Your task to perform on an android device: Open the Play Movies app and select the watchlist tab. Image 0: 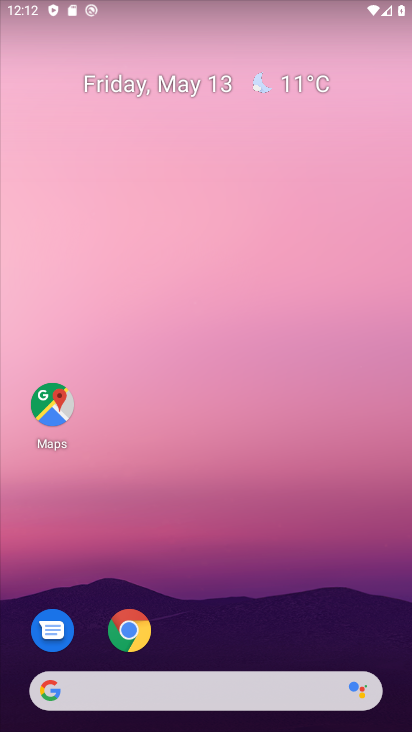
Step 0: press home button
Your task to perform on an android device: Open the Play Movies app and select the watchlist tab. Image 1: 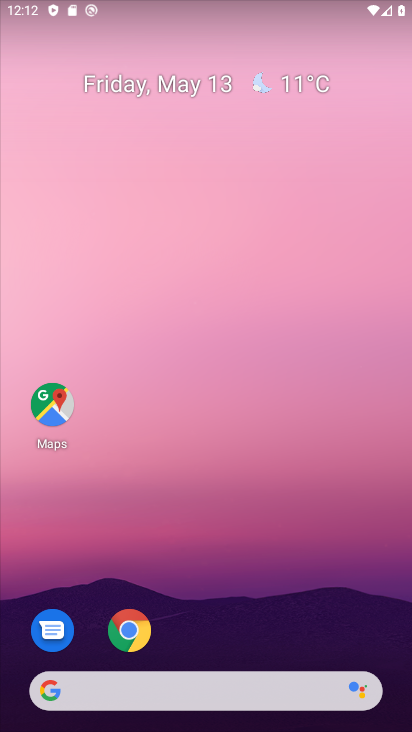
Step 1: click (201, 627)
Your task to perform on an android device: Open the Play Movies app and select the watchlist tab. Image 2: 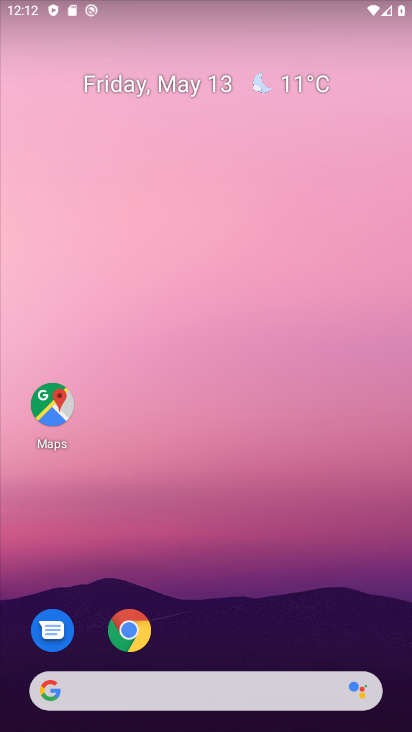
Step 2: drag from (255, 429) to (43, 388)
Your task to perform on an android device: Open the Play Movies app and select the watchlist tab. Image 3: 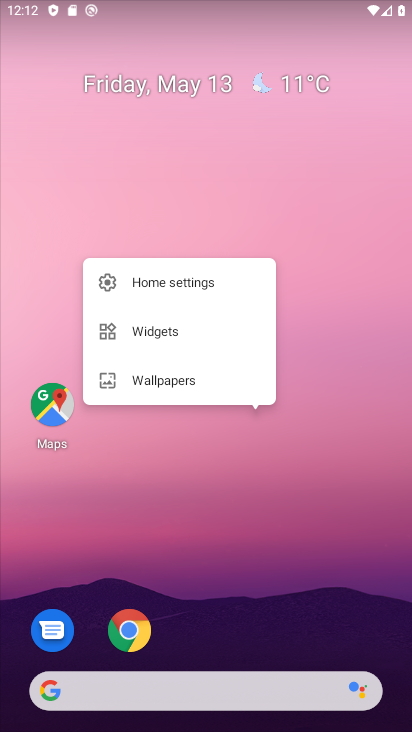
Step 3: press home button
Your task to perform on an android device: Open the Play Movies app and select the watchlist tab. Image 4: 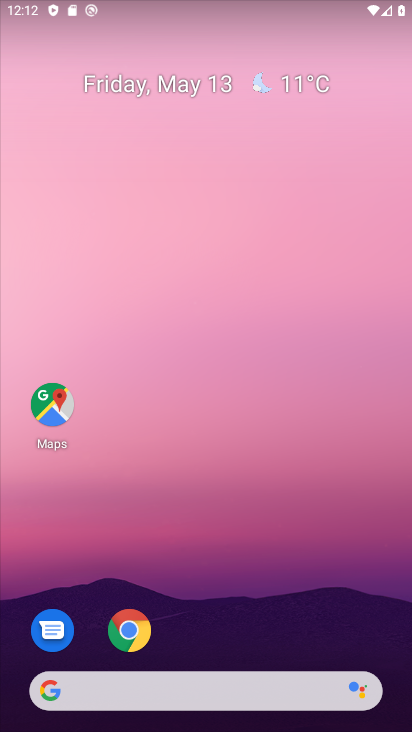
Step 4: drag from (31, 623) to (274, 200)
Your task to perform on an android device: Open the Play Movies app and select the watchlist tab. Image 5: 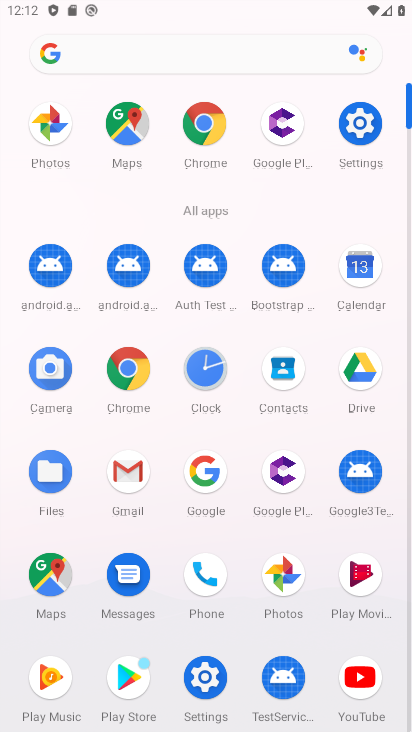
Step 5: click (370, 573)
Your task to perform on an android device: Open the Play Movies app and select the watchlist tab. Image 6: 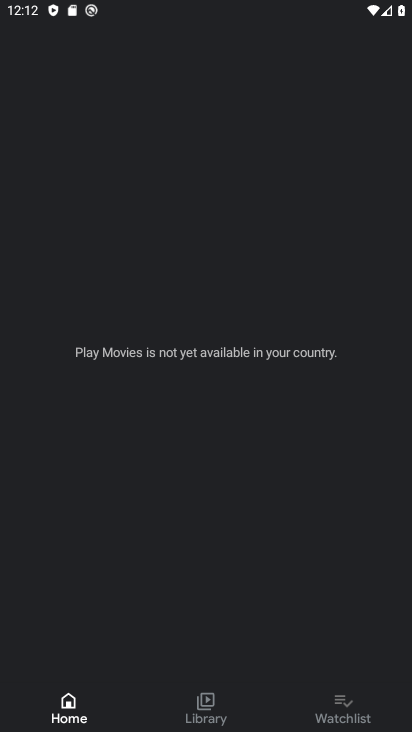
Step 6: click (335, 717)
Your task to perform on an android device: Open the Play Movies app and select the watchlist tab. Image 7: 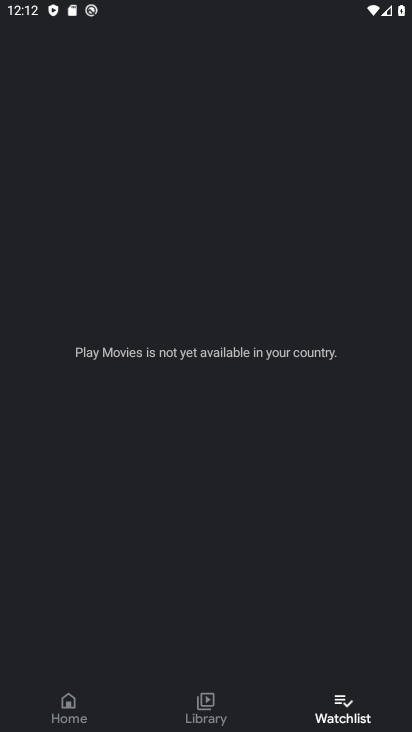
Step 7: task complete